Your task to perform on an android device: snooze an email in the gmail app Image 0: 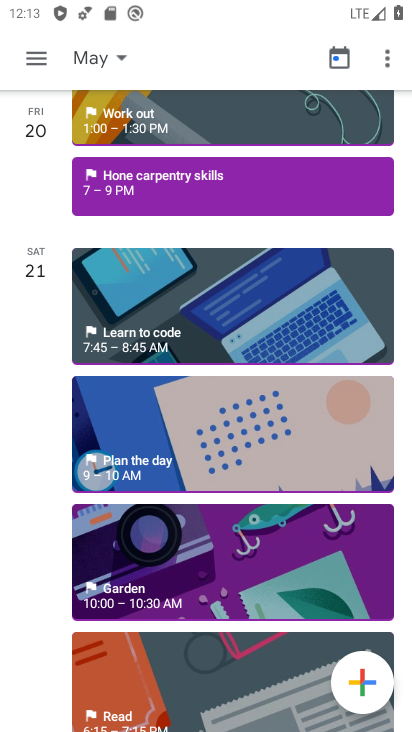
Step 0: press home button
Your task to perform on an android device: snooze an email in the gmail app Image 1: 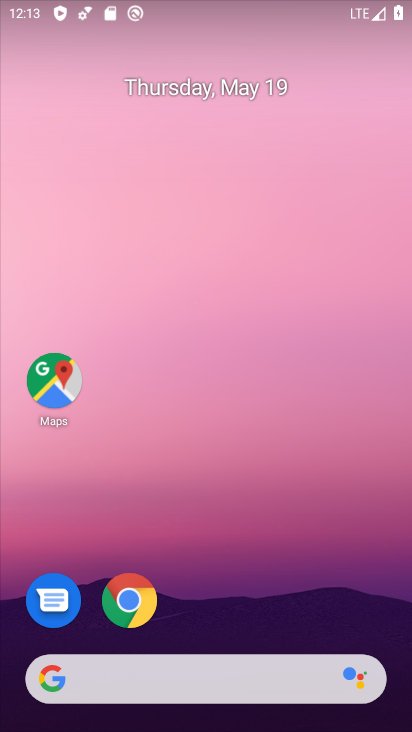
Step 1: press home button
Your task to perform on an android device: snooze an email in the gmail app Image 2: 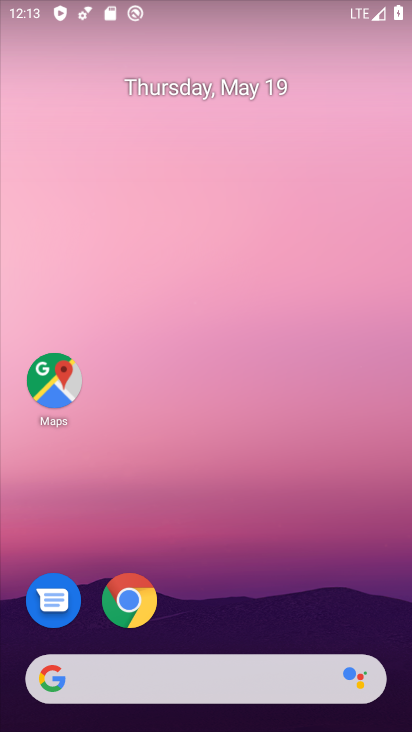
Step 2: drag from (245, 572) to (209, 111)
Your task to perform on an android device: snooze an email in the gmail app Image 3: 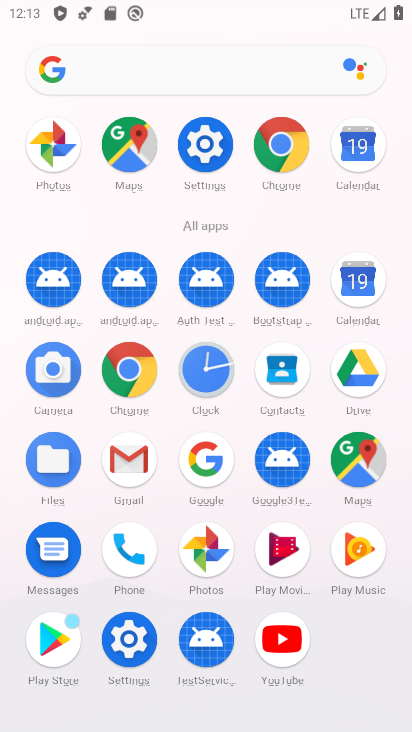
Step 3: click (129, 455)
Your task to perform on an android device: snooze an email in the gmail app Image 4: 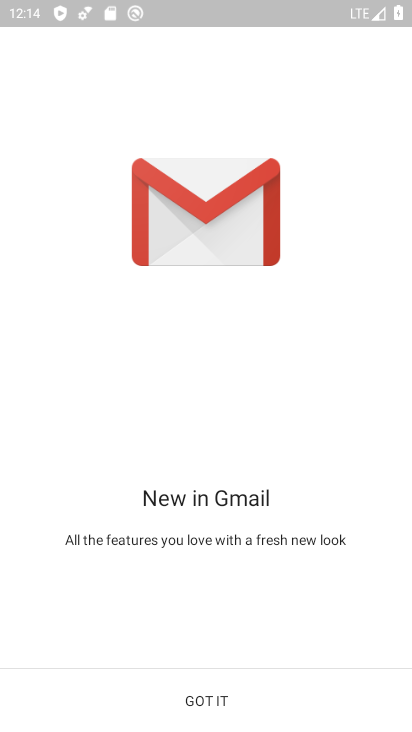
Step 4: click (196, 690)
Your task to perform on an android device: snooze an email in the gmail app Image 5: 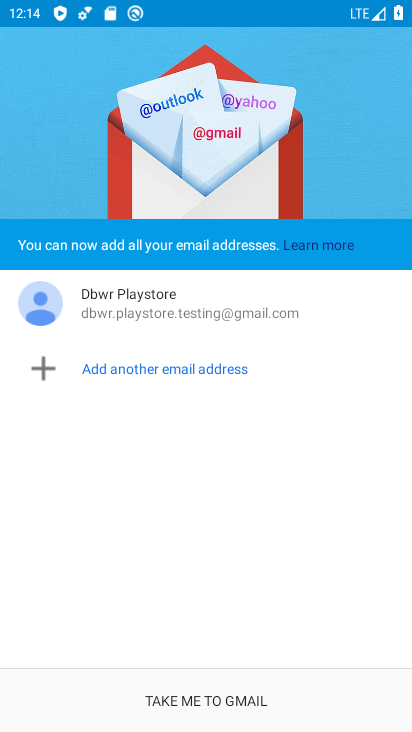
Step 5: click (196, 690)
Your task to perform on an android device: snooze an email in the gmail app Image 6: 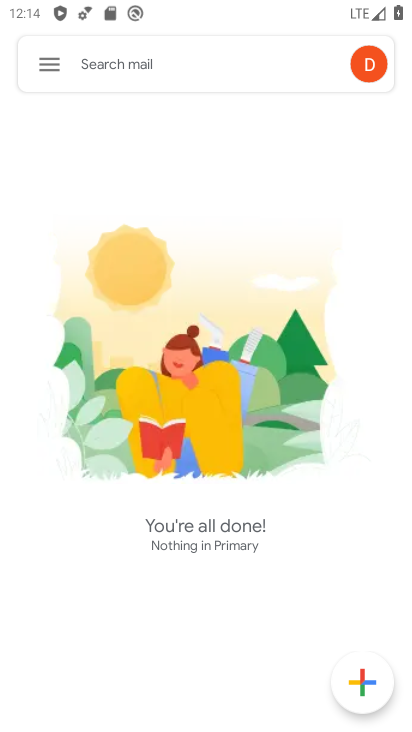
Step 6: click (56, 53)
Your task to perform on an android device: snooze an email in the gmail app Image 7: 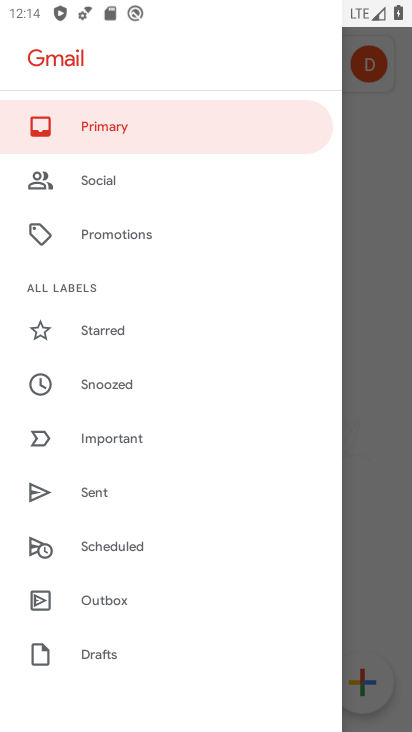
Step 7: drag from (229, 579) to (217, 228)
Your task to perform on an android device: snooze an email in the gmail app Image 8: 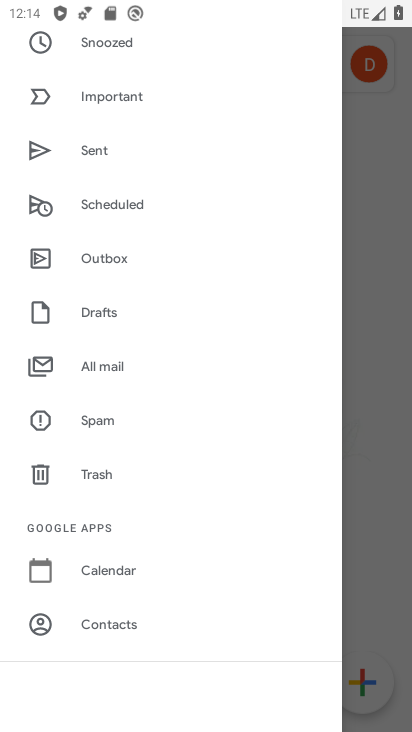
Step 8: click (106, 365)
Your task to perform on an android device: snooze an email in the gmail app Image 9: 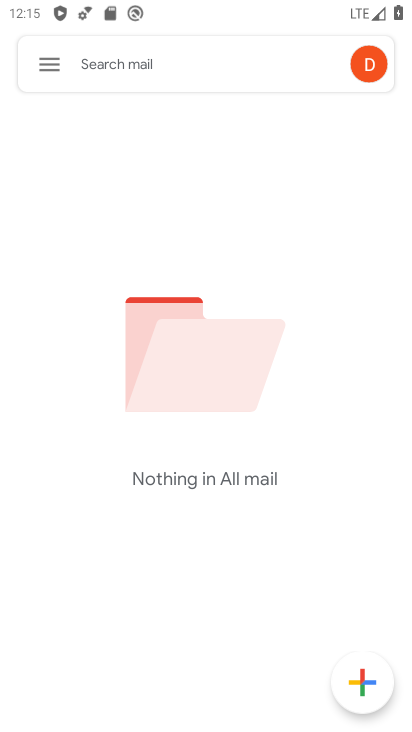
Step 9: task complete